Your task to perform on an android device: set an alarm Image 0: 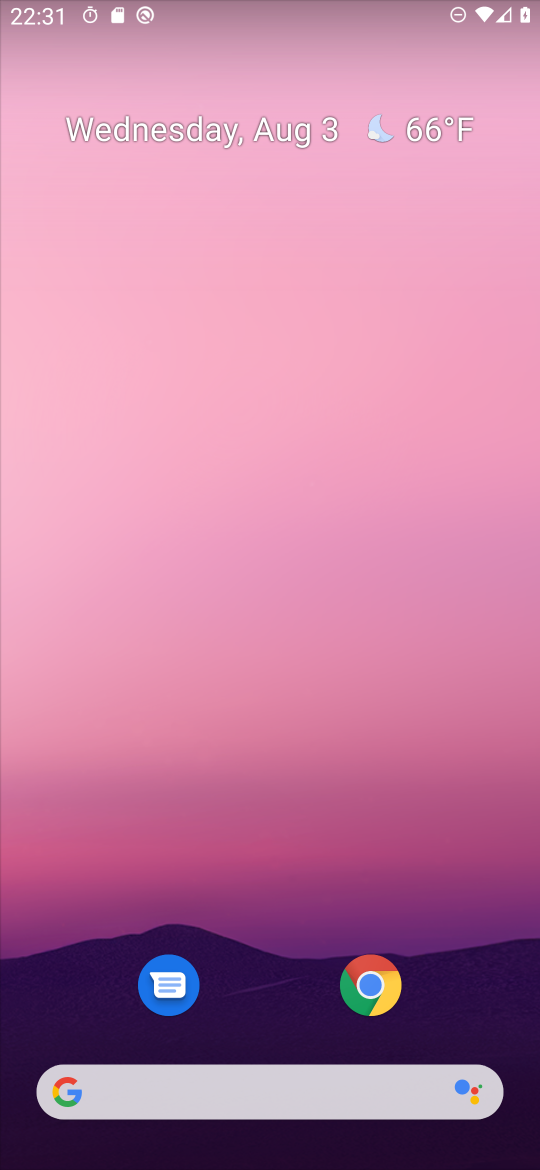
Step 0: drag from (282, 843) to (290, 270)
Your task to perform on an android device: set an alarm Image 1: 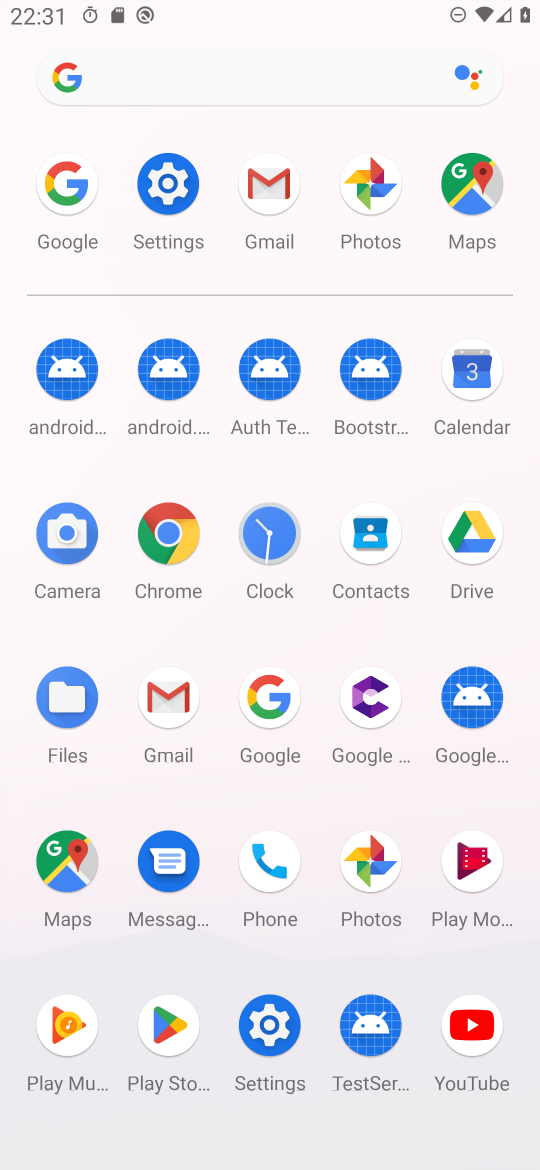
Step 1: click (262, 516)
Your task to perform on an android device: set an alarm Image 2: 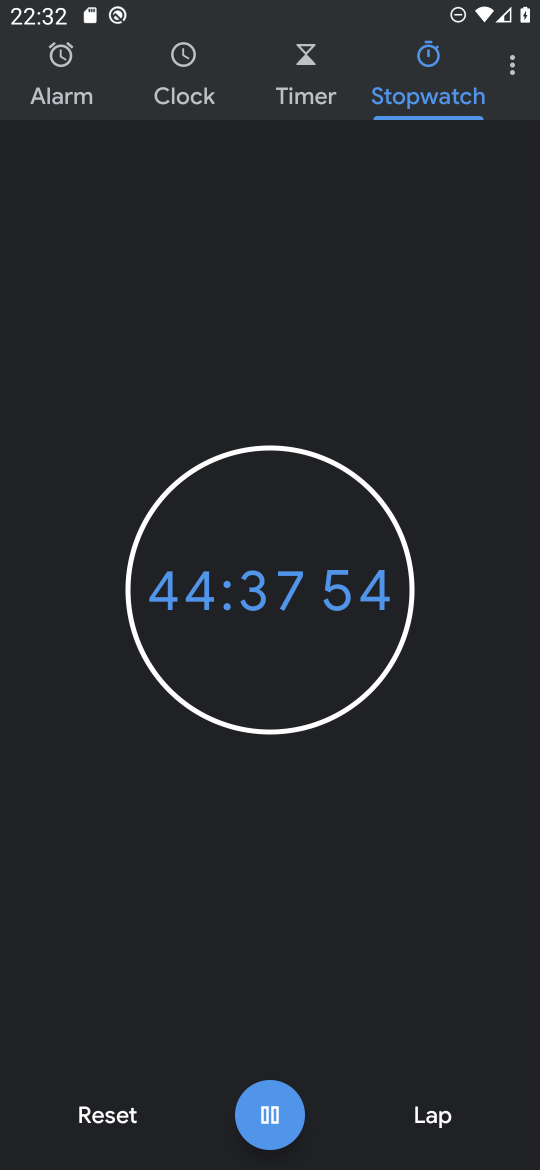
Step 2: click (56, 44)
Your task to perform on an android device: set an alarm Image 3: 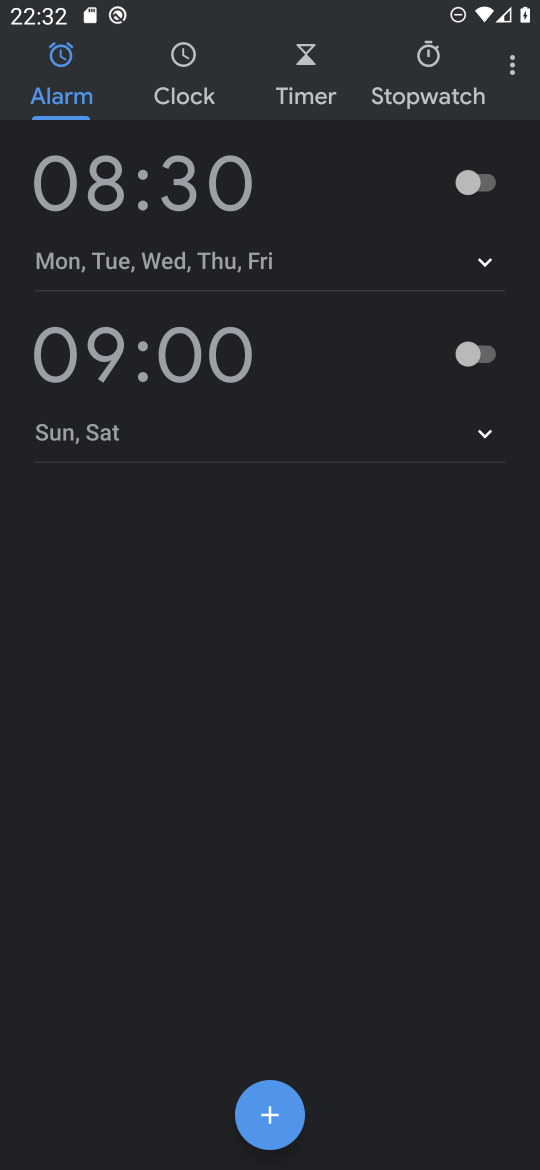
Step 3: click (469, 207)
Your task to perform on an android device: set an alarm Image 4: 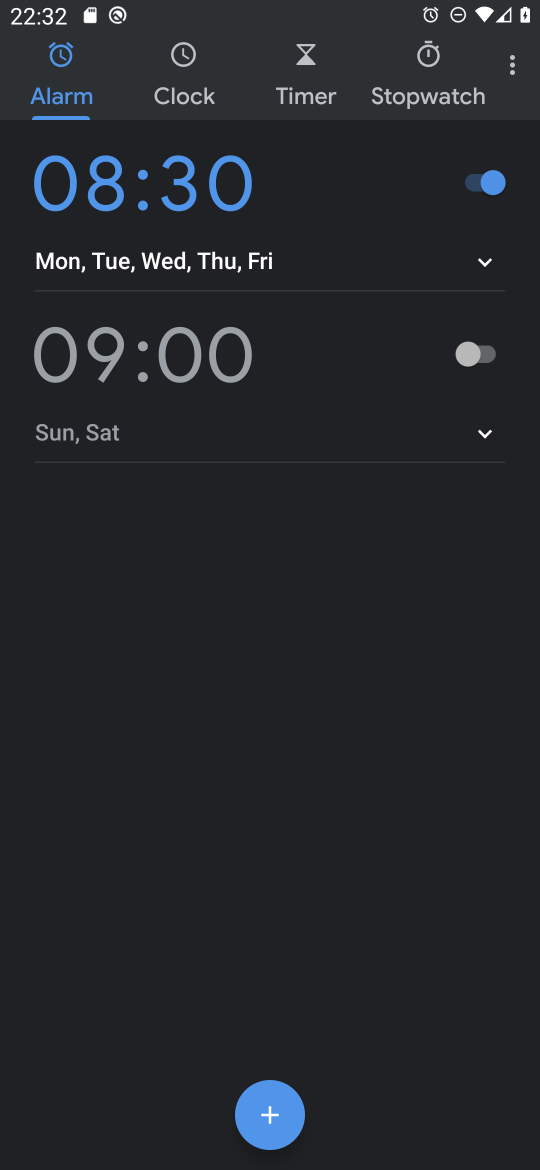
Step 4: task complete